Your task to perform on an android device: Show me popular games on the Play Store Image 0: 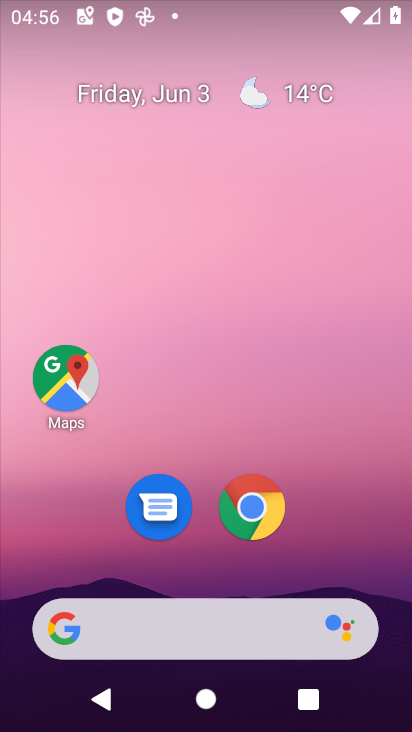
Step 0: press home button
Your task to perform on an android device: Show me popular games on the Play Store Image 1: 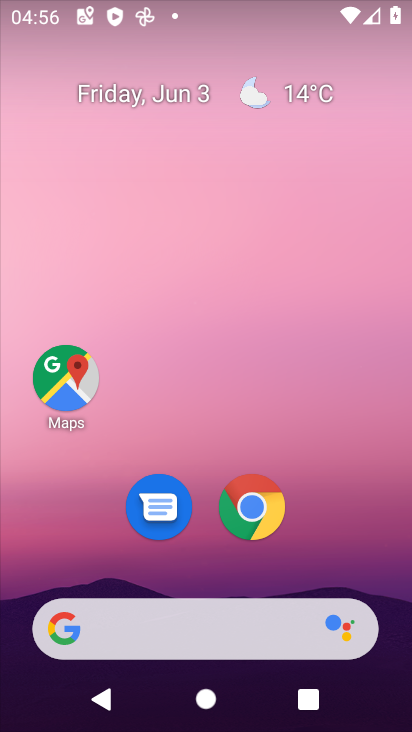
Step 1: drag from (374, 545) to (320, 133)
Your task to perform on an android device: Show me popular games on the Play Store Image 2: 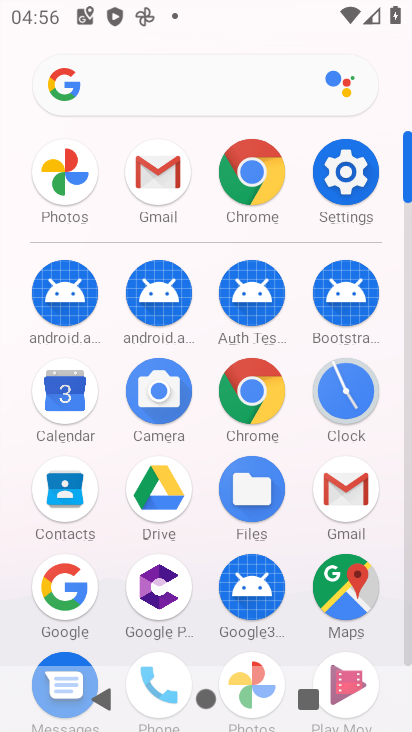
Step 2: drag from (105, 633) to (96, 319)
Your task to perform on an android device: Show me popular games on the Play Store Image 3: 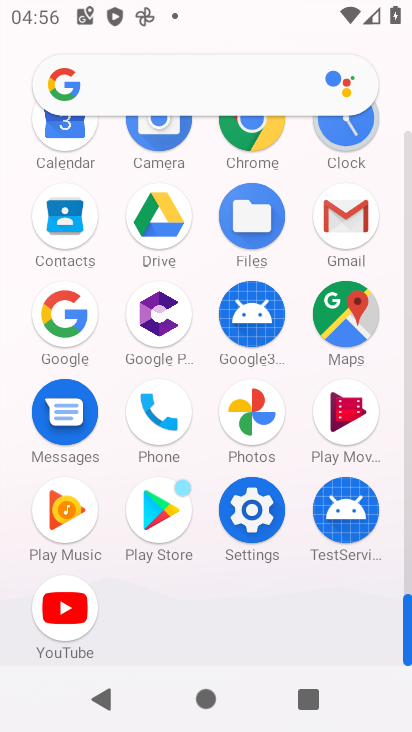
Step 3: click (173, 490)
Your task to perform on an android device: Show me popular games on the Play Store Image 4: 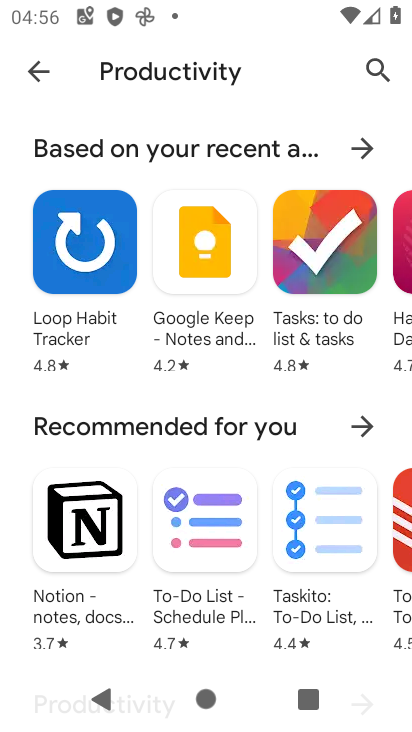
Step 4: click (28, 61)
Your task to perform on an android device: Show me popular games on the Play Store Image 5: 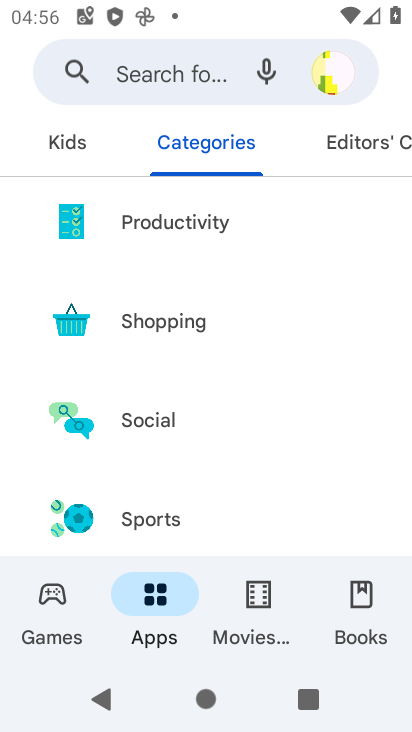
Step 5: click (59, 622)
Your task to perform on an android device: Show me popular games on the Play Store Image 6: 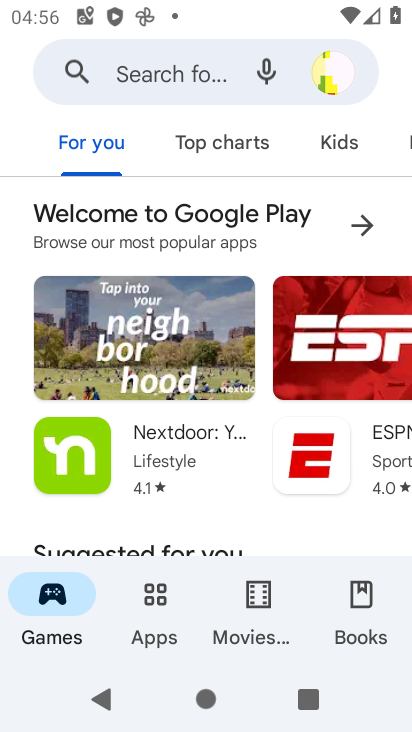
Step 6: drag from (24, 536) to (137, 4)
Your task to perform on an android device: Show me popular games on the Play Store Image 7: 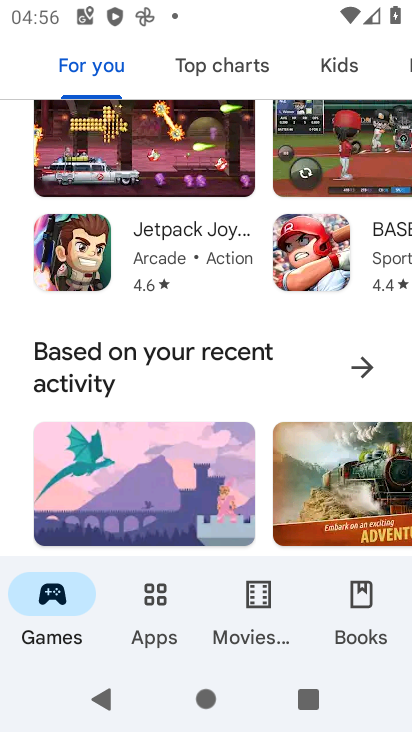
Step 7: drag from (19, 497) to (70, 93)
Your task to perform on an android device: Show me popular games on the Play Store Image 8: 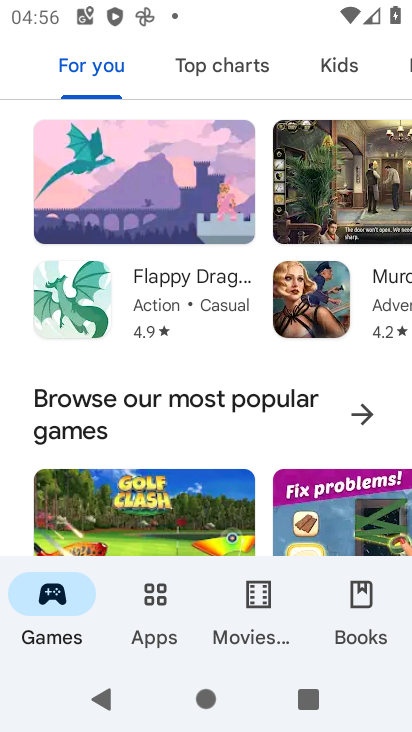
Step 8: click (355, 415)
Your task to perform on an android device: Show me popular games on the Play Store Image 9: 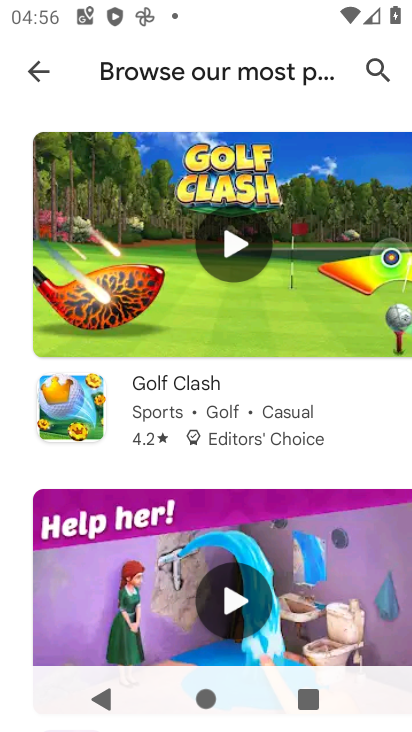
Step 9: task complete